Your task to perform on an android device: toggle improve location accuracy Image 0: 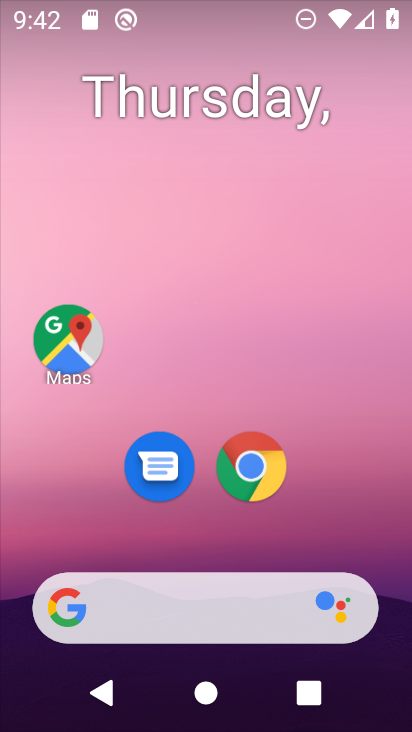
Step 0: drag from (310, 658) to (259, 36)
Your task to perform on an android device: toggle improve location accuracy Image 1: 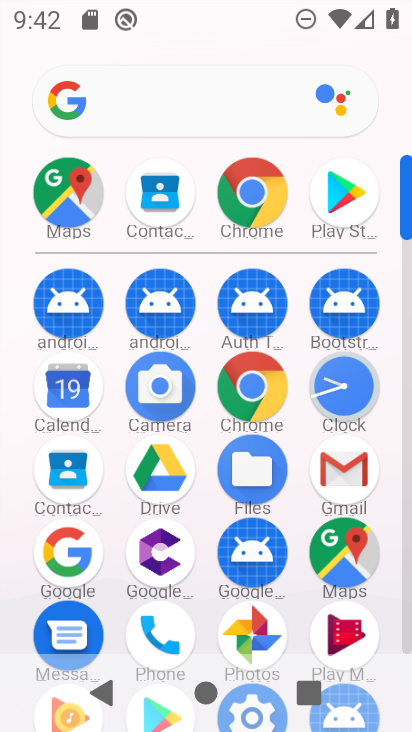
Step 1: drag from (207, 626) to (186, 350)
Your task to perform on an android device: toggle improve location accuracy Image 2: 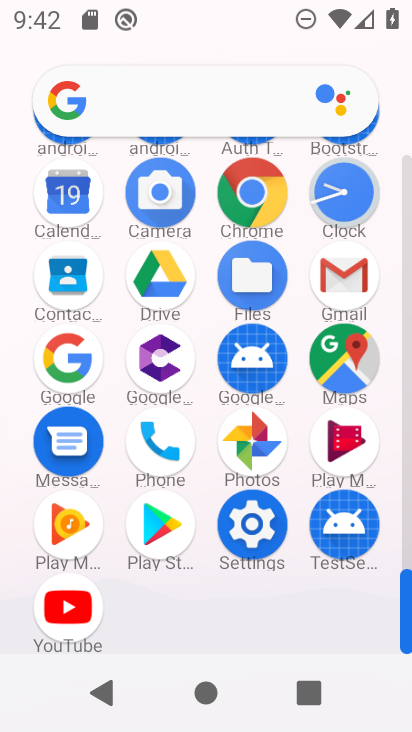
Step 2: click (237, 523)
Your task to perform on an android device: toggle improve location accuracy Image 3: 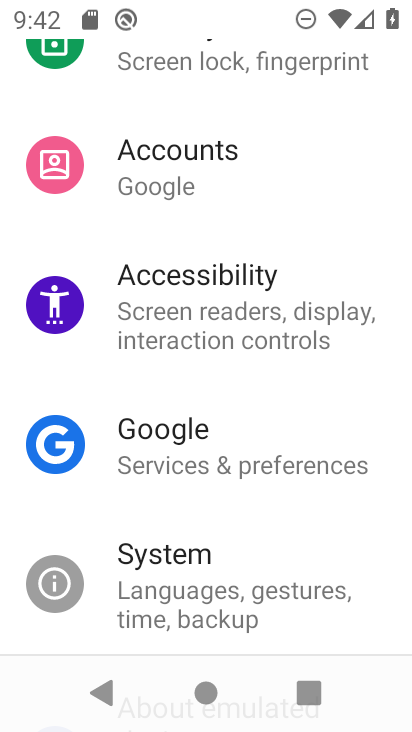
Step 3: drag from (268, 598) to (288, 668)
Your task to perform on an android device: toggle improve location accuracy Image 4: 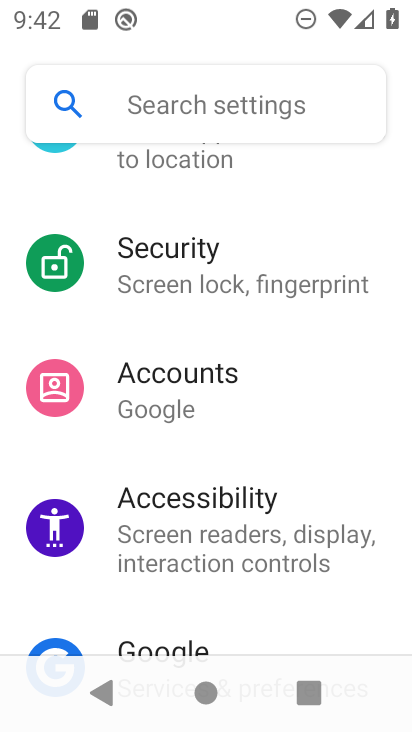
Step 4: drag from (305, 268) to (336, 526)
Your task to perform on an android device: toggle improve location accuracy Image 5: 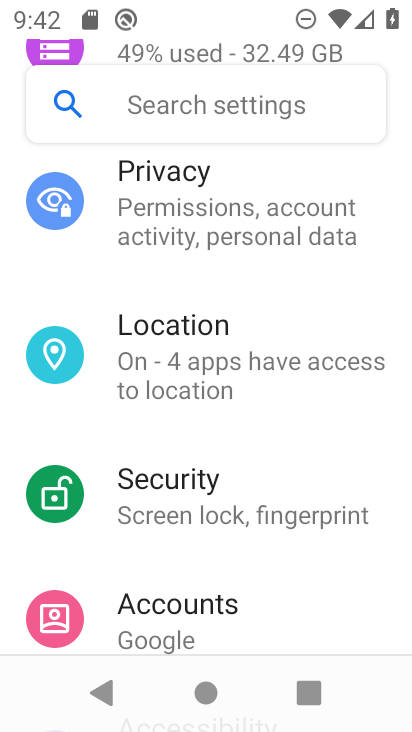
Step 5: click (230, 392)
Your task to perform on an android device: toggle improve location accuracy Image 6: 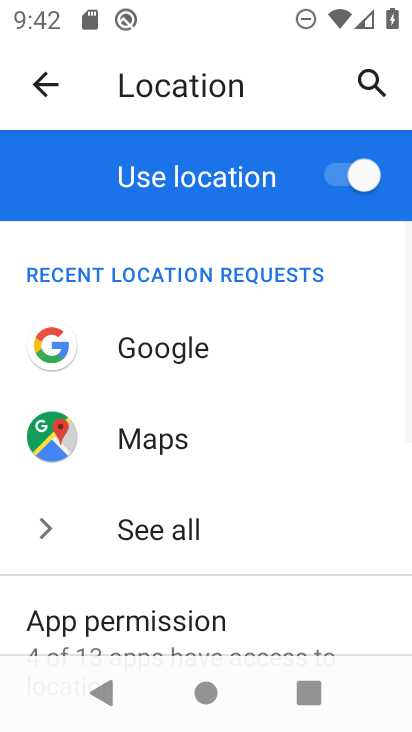
Step 6: drag from (267, 623) to (342, 277)
Your task to perform on an android device: toggle improve location accuracy Image 7: 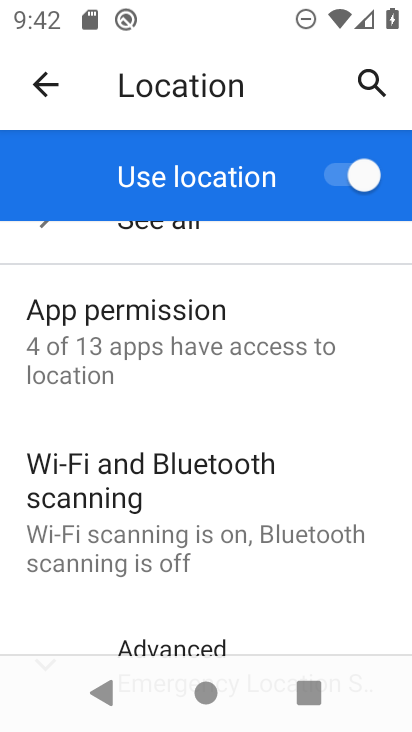
Step 7: drag from (300, 493) to (342, 308)
Your task to perform on an android device: toggle improve location accuracy Image 8: 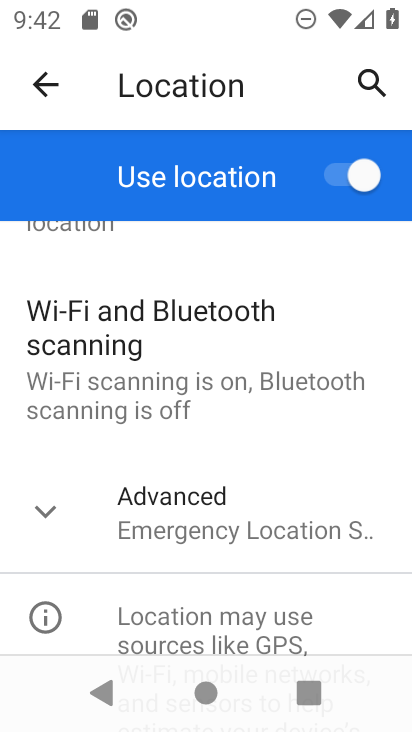
Step 8: click (278, 505)
Your task to perform on an android device: toggle improve location accuracy Image 9: 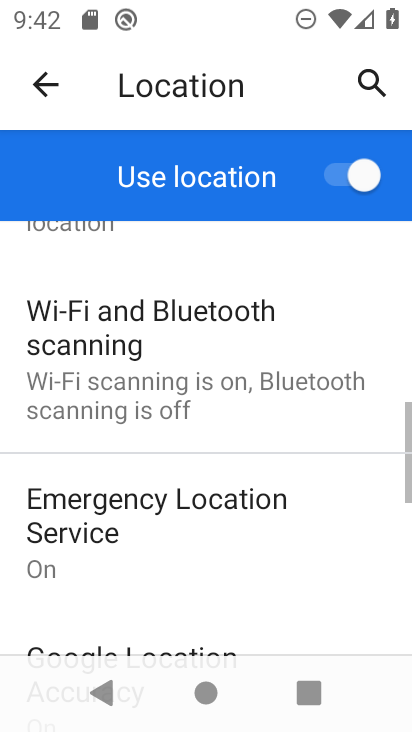
Step 9: drag from (254, 603) to (319, 307)
Your task to perform on an android device: toggle improve location accuracy Image 10: 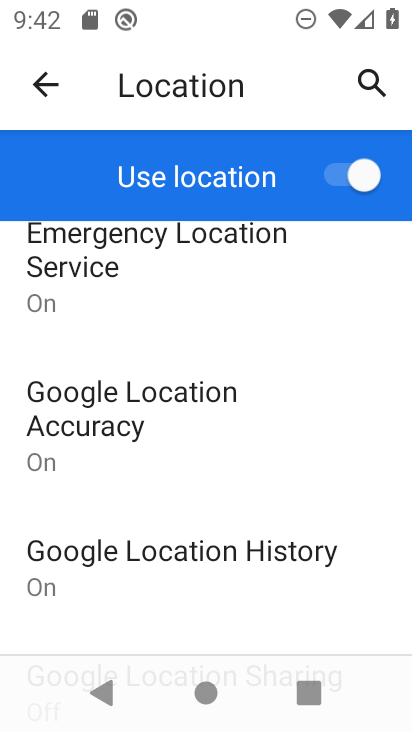
Step 10: click (196, 413)
Your task to perform on an android device: toggle improve location accuracy Image 11: 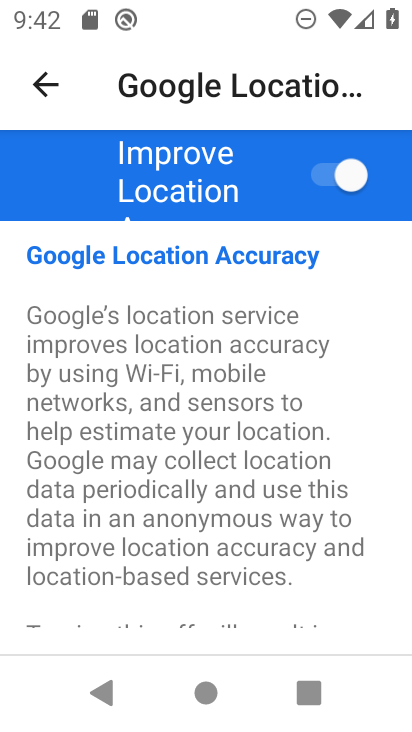
Step 11: click (337, 171)
Your task to perform on an android device: toggle improve location accuracy Image 12: 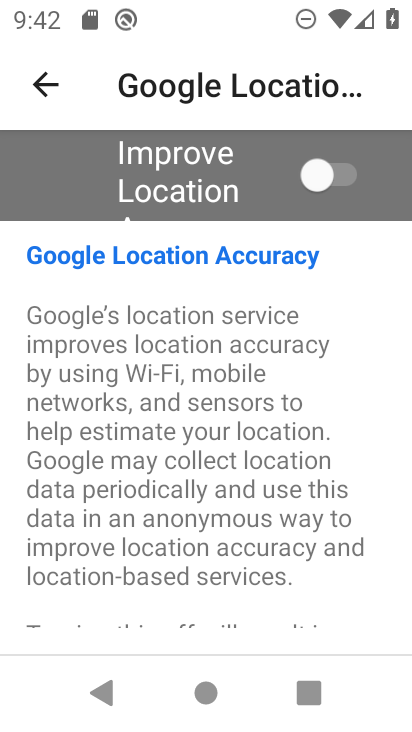
Step 12: task complete